Your task to perform on an android device: Go to accessibility settings Image 0: 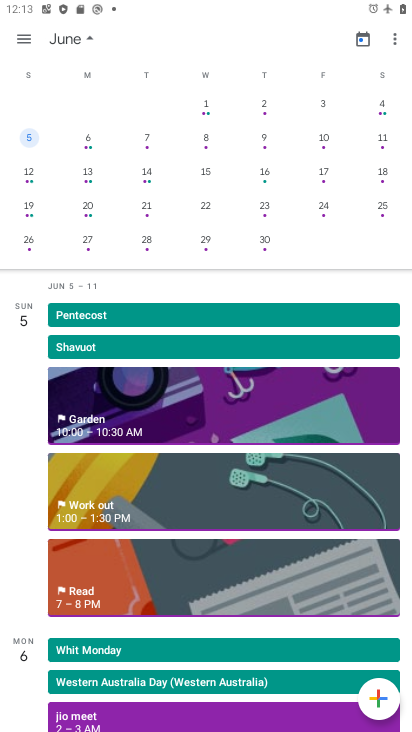
Step 0: press home button
Your task to perform on an android device: Go to accessibility settings Image 1: 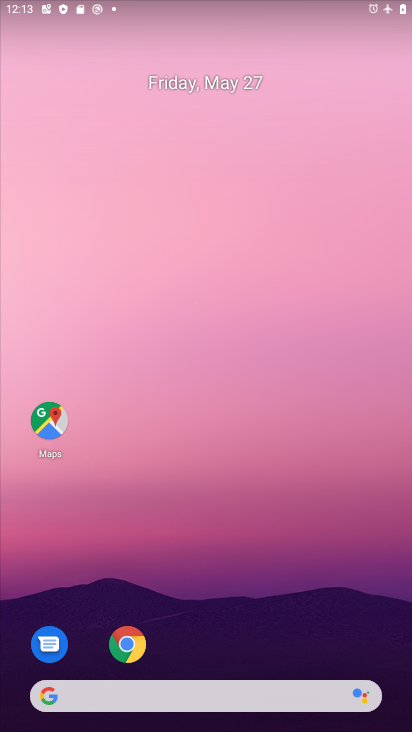
Step 1: drag from (205, 617) to (236, 199)
Your task to perform on an android device: Go to accessibility settings Image 2: 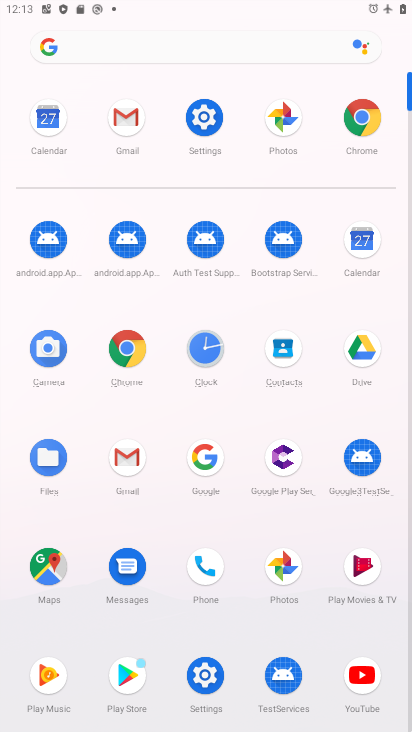
Step 2: click (193, 115)
Your task to perform on an android device: Go to accessibility settings Image 3: 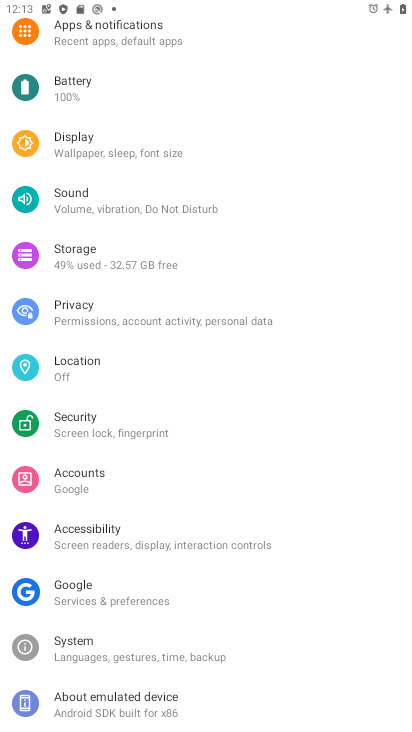
Step 3: click (146, 524)
Your task to perform on an android device: Go to accessibility settings Image 4: 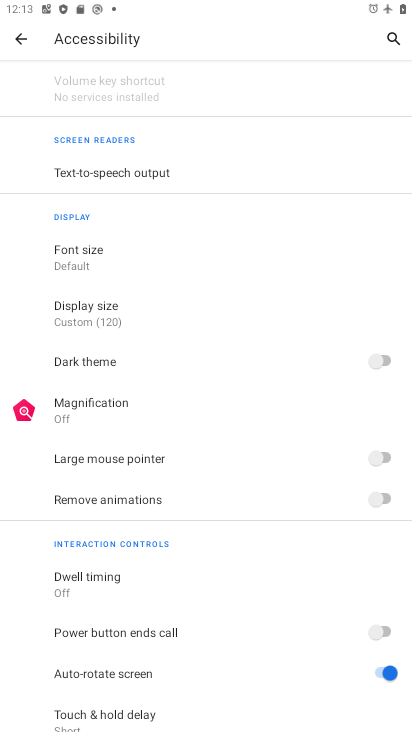
Step 4: drag from (187, 537) to (204, 338)
Your task to perform on an android device: Go to accessibility settings Image 5: 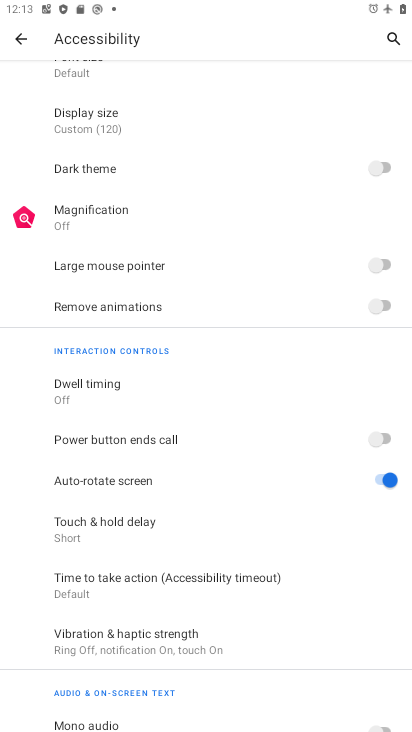
Step 5: drag from (180, 568) to (193, 347)
Your task to perform on an android device: Go to accessibility settings Image 6: 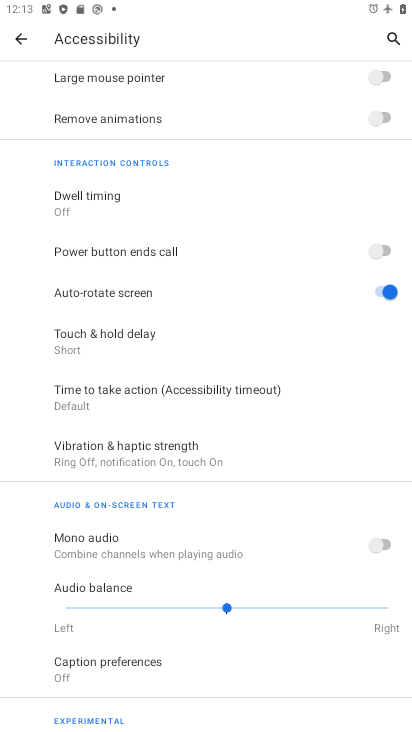
Step 6: drag from (213, 229) to (208, 556)
Your task to perform on an android device: Go to accessibility settings Image 7: 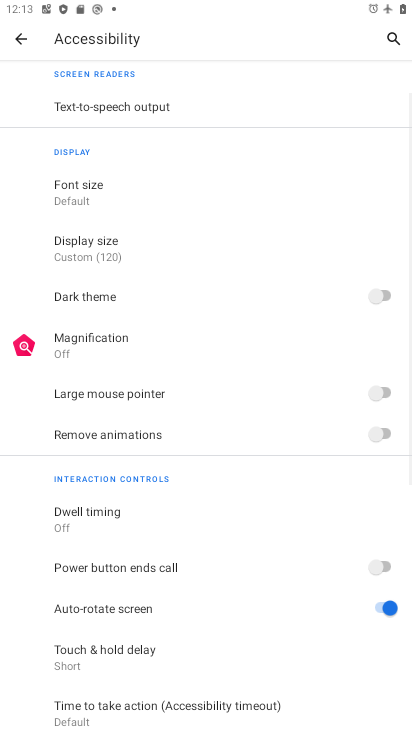
Step 7: drag from (177, 249) to (200, 477)
Your task to perform on an android device: Go to accessibility settings Image 8: 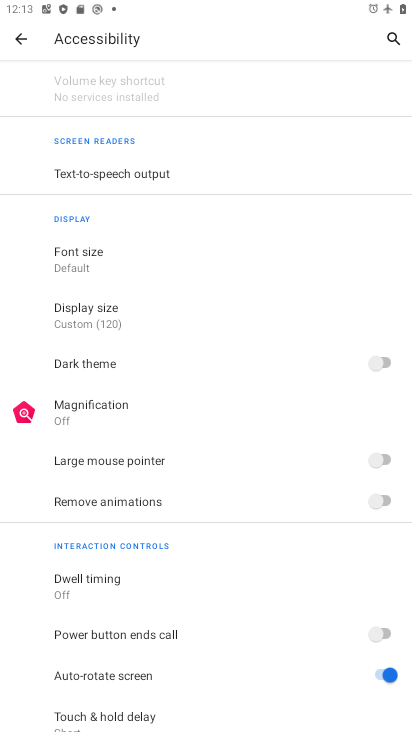
Step 8: drag from (203, 565) to (237, 370)
Your task to perform on an android device: Go to accessibility settings Image 9: 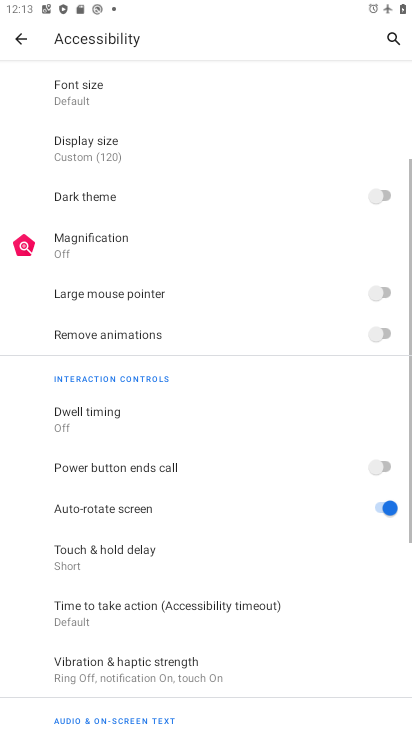
Step 9: drag from (251, 610) to (251, 362)
Your task to perform on an android device: Go to accessibility settings Image 10: 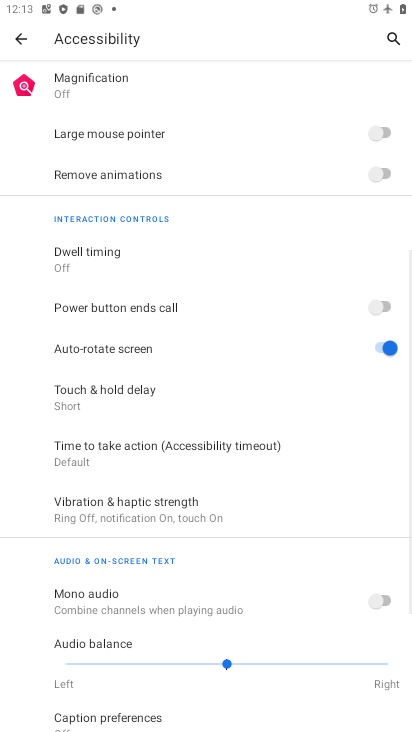
Step 10: drag from (255, 524) to (254, 328)
Your task to perform on an android device: Go to accessibility settings Image 11: 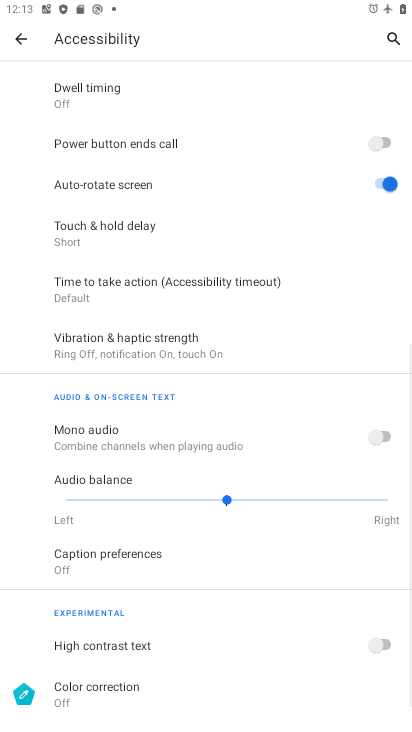
Step 11: drag from (230, 520) to (233, 324)
Your task to perform on an android device: Go to accessibility settings Image 12: 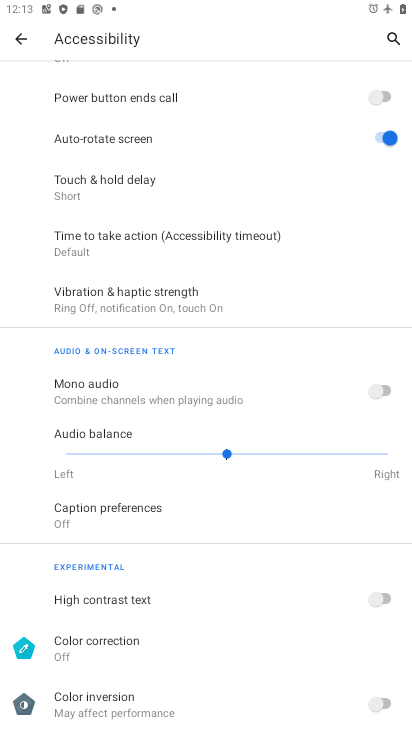
Step 12: drag from (250, 541) to (227, 258)
Your task to perform on an android device: Go to accessibility settings Image 13: 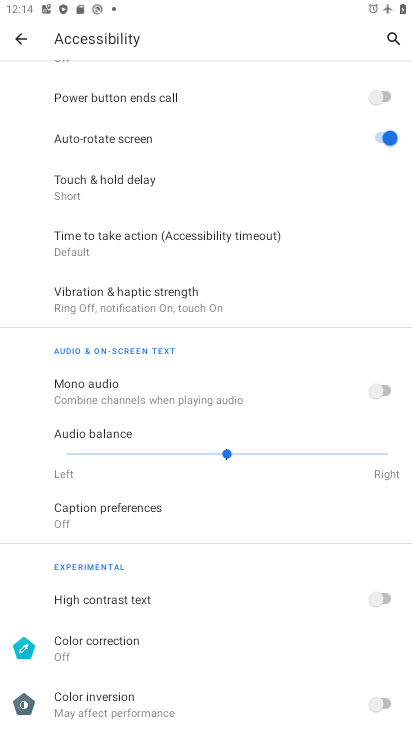
Step 13: drag from (209, 428) to (221, 109)
Your task to perform on an android device: Go to accessibility settings Image 14: 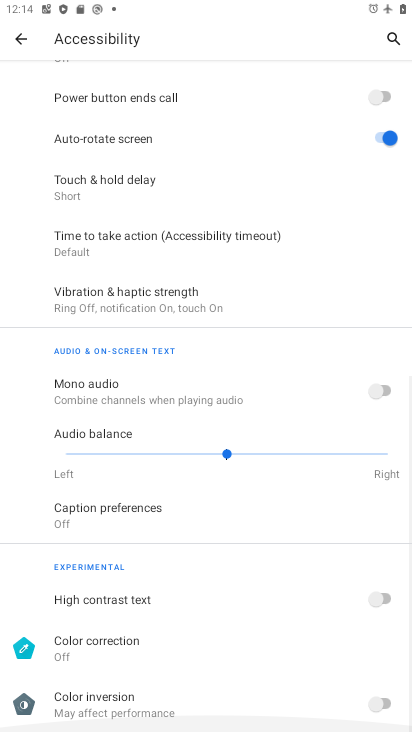
Step 14: drag from (221, 115) to (241, 465)
Your task to perform on an android device: Go to accessibility settings Image 15: 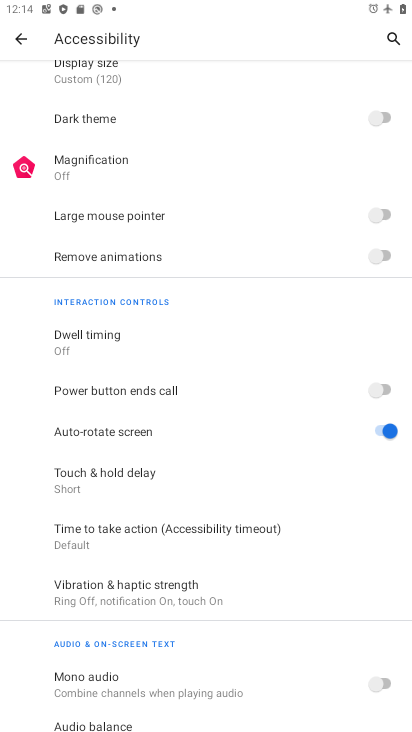
Step 15: click (235, 543)
Your task to perform on an android device: Go to accessibility settings Image 16: 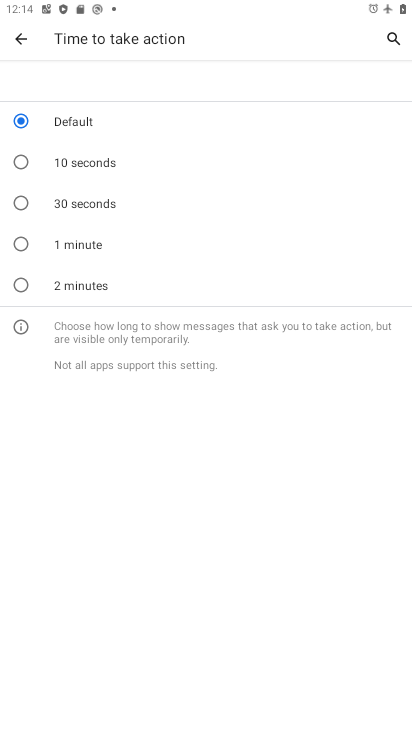
Step 16: click (12, 33)
Your task to perform on an android device: Go to accessibility settings Image 17: 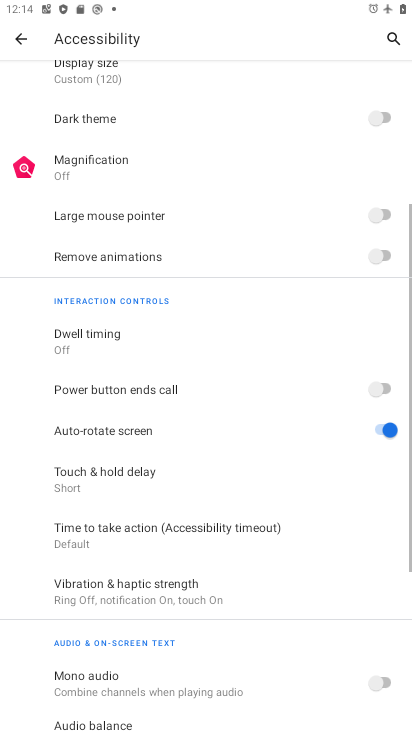
Step 17: task complete